Your task to perform on an android device: Open calendar and show me the second week of next month Image 0: 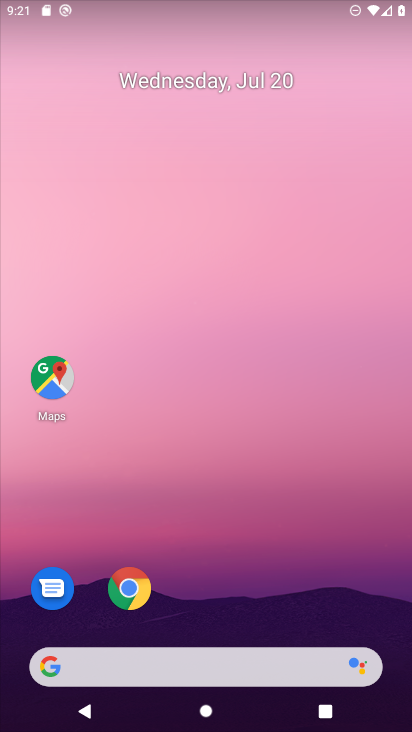
Step 0: click (192, 81)
Your task to perform on an android device: Open calendar and show me the second week of next month Image 1: 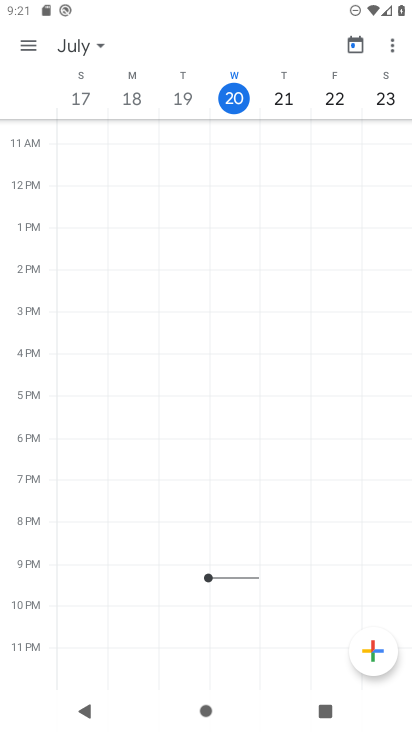
Step 1: click (90, 48)
Your task to perform on an android device: Open calendar and show me the second week of next month Image 2: 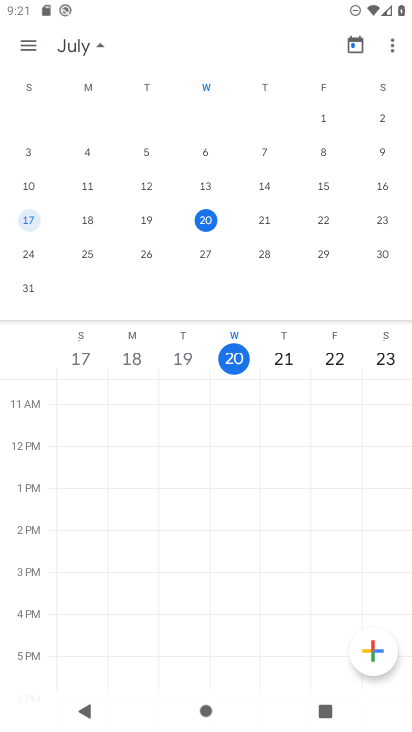
Step 2: drag from (370, 298) to (51, 293)
Your task to perform on an android device: Open calendar and show me the second week of next month Image 3: 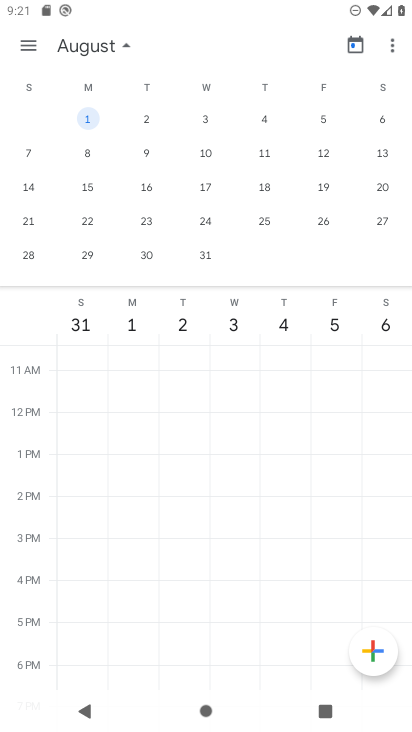
Step 3: click (312, 155)
Your task to perform on an android device: Open calendar and show me the second week of next month Image 4: 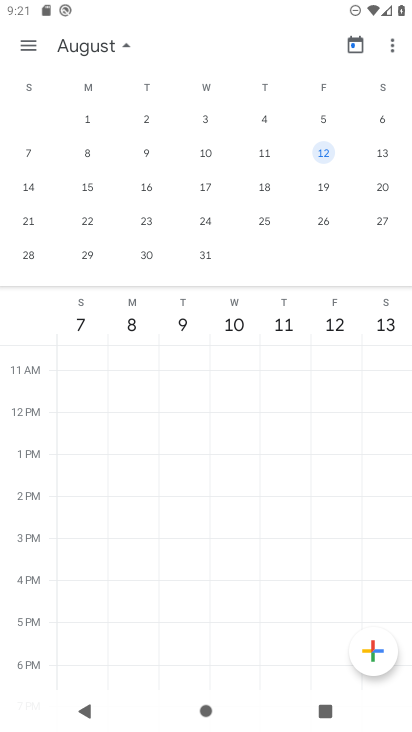
Step 4: task complete